Your task to perform on an android device: Open Chrome and go to the settings page Image 0: 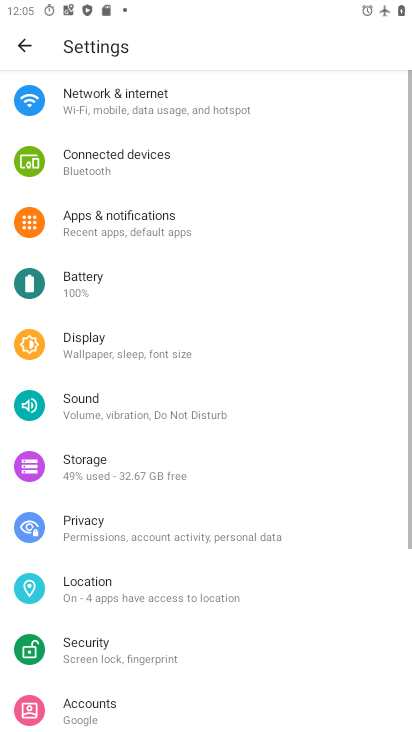
Step 0: press home button
Your task to perform on an android device: Open Chrome and go to the settings page Image 1: 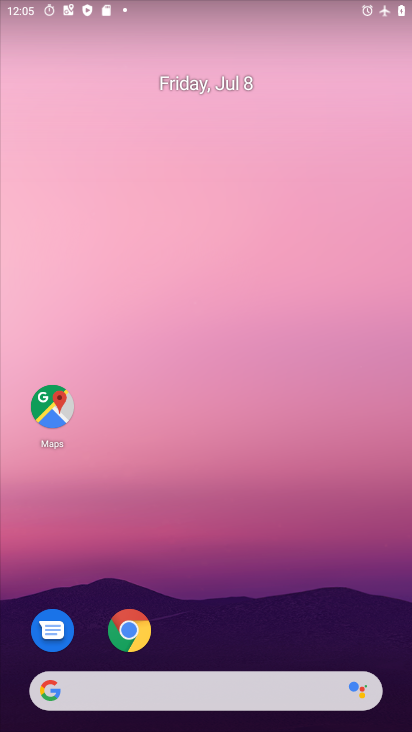
Step 1: click (123, 634)
Your task to perform on an android device: Open Chrome and go to the settings page Image 2: 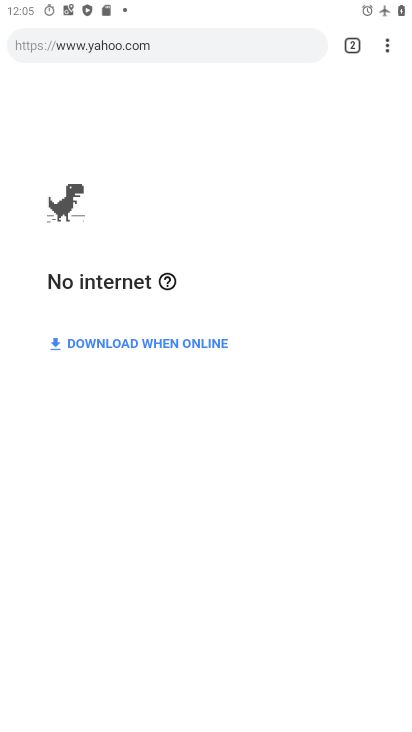
Step 2: click (384, 46)
Your task to perform on an android device: Open Chrome and go to the settings page Image 3: 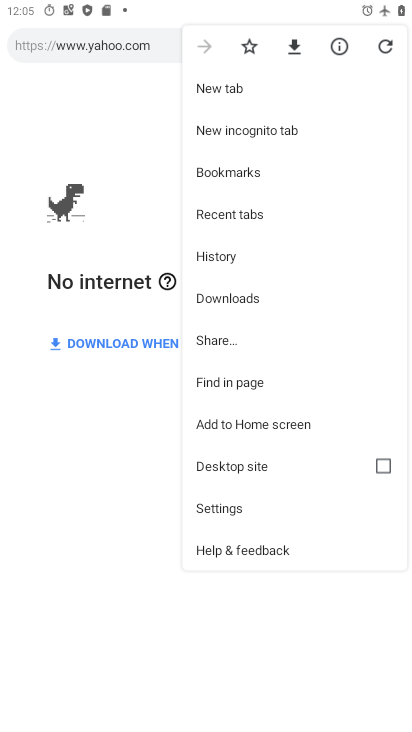
Step 3: click (233, 508)
Your task to perform on an android device: Open Chrome and go to the settings page Image 4: 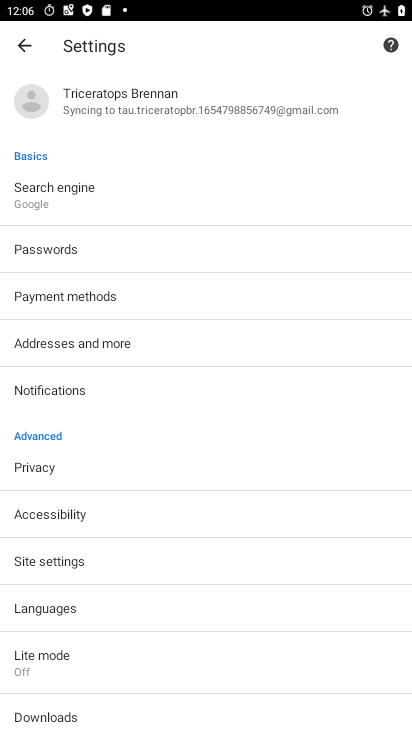
Step 4: task complete